Your task to perform on an android device: Open ESPN.com Image 0: 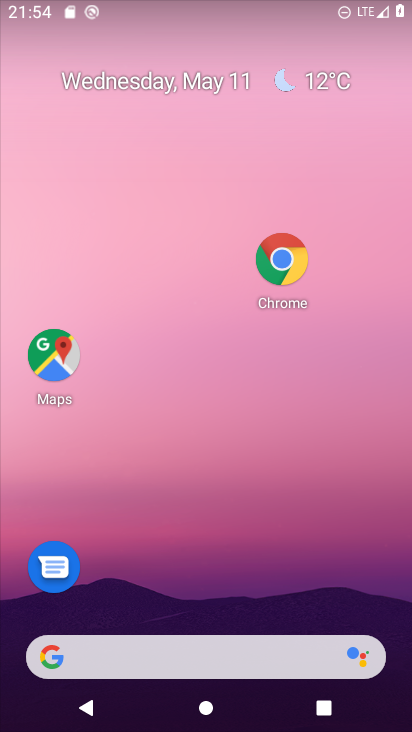
Step 0: press home button
Your task to perform on an android device: Open ESPN.com Image 1: 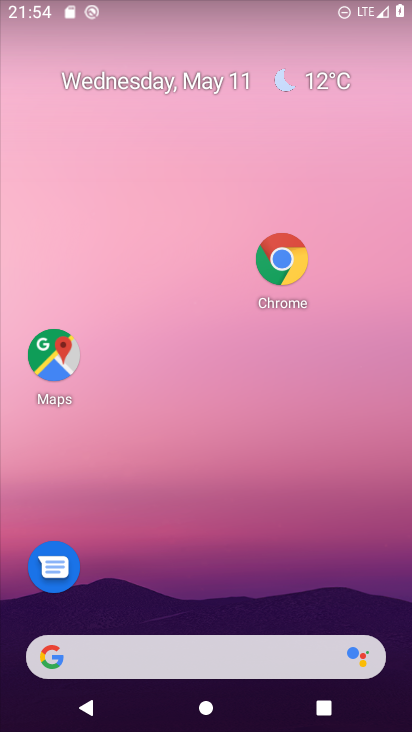
Step 1: drag from (179, 662) to (280, 142)
Your task to perform on an android device: Open ESPN.com Image 2: 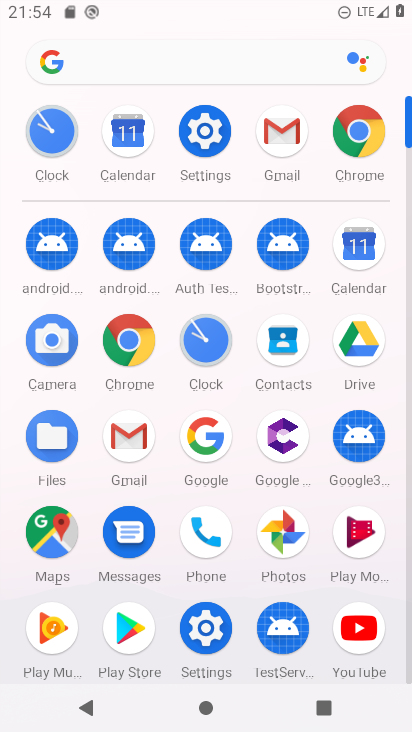
Step 2: click (363, 146)
Your task to perform on an android device: Open ESPN.com Image 3: 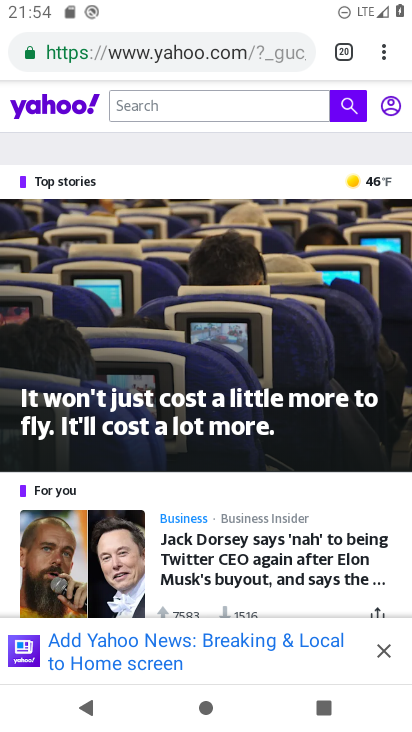
Step 3: drag from (380, 50) to (290, 110)
Your task to perform on an android device: Open ESPN.com Image 4: 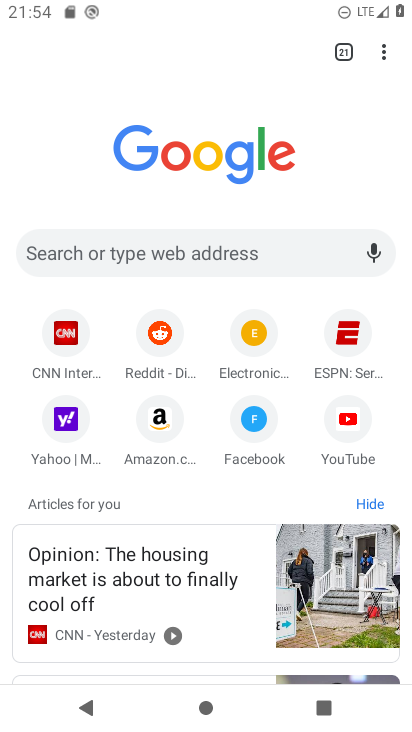
Step 4: click (350, 340)
Your task to perform on an android device: Open ESPN.com Image 5: 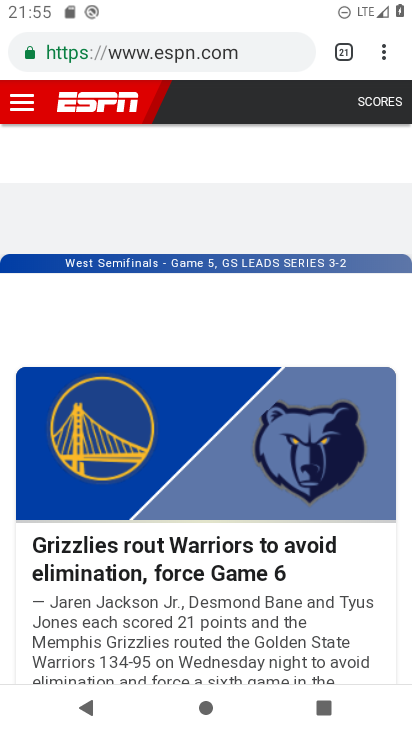
Step 5: task complete